Your task to perform on an android device: change the clock display to show seconds Image 0: 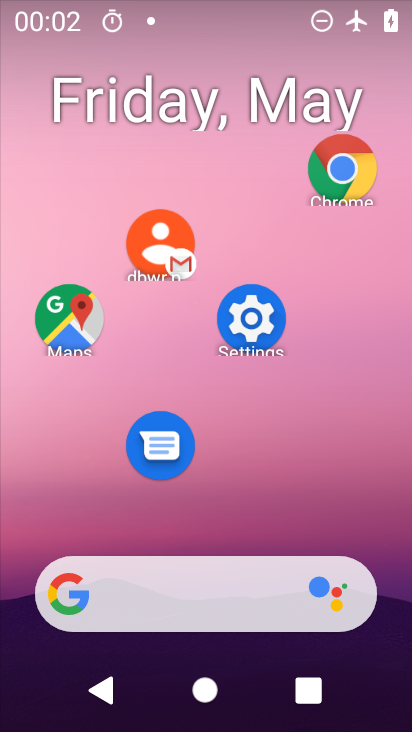
Step 0: click (323, 138)
Your task to perform on an android device: change the clock display to show seconds Image 1: 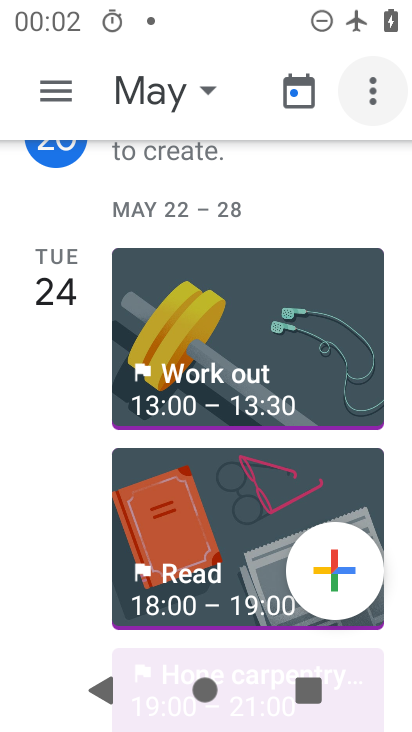
Step 1: drag from (239, 506) to (279, 251)
Your task to perform on an android device: change the clock display to show seconds Image 2: 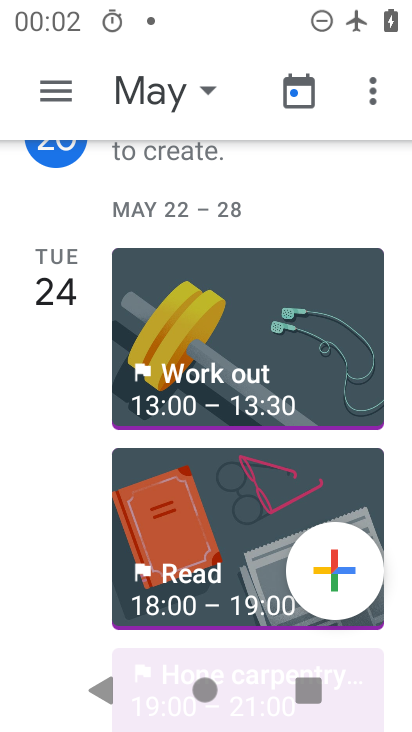
Step 2: click (179, 100)
Your task to perform on an android device: change the clock display to show seconds Image 3: 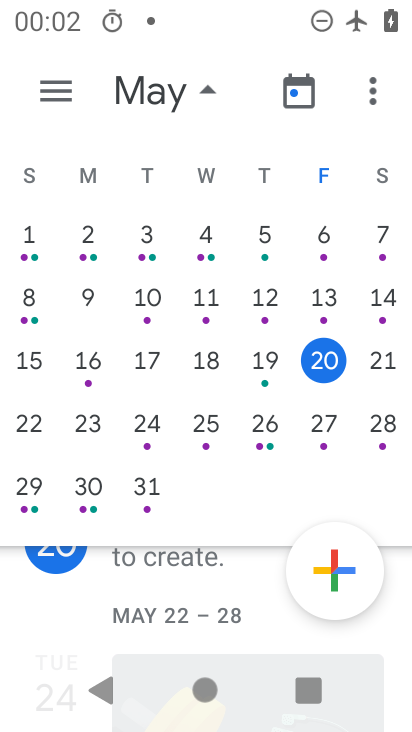
Step 3: press home button
Your task to perform on an android device: change the clock display to show seconds Image 4: 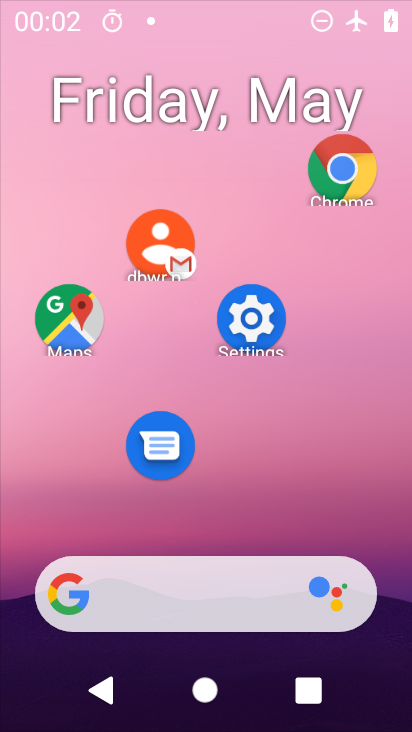
Step 4: drag from (214, 545) to (323, 202)
Your task to perform on an android device: change the clock display to show seconds Image 5: 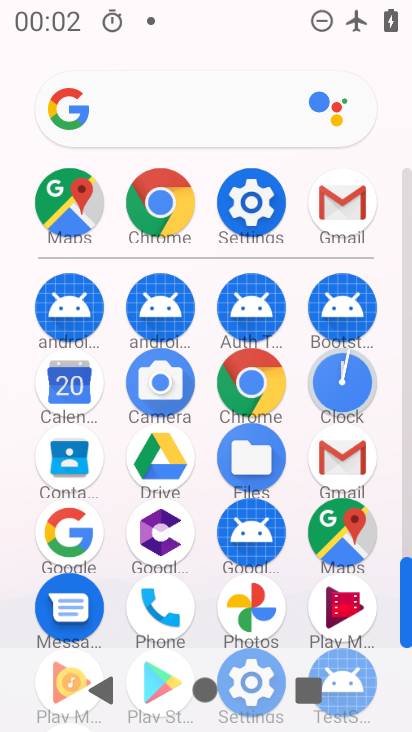
Step 5: click (339, 397)
Your task to perform on an android device: change the clock display to show seconds Image 6: 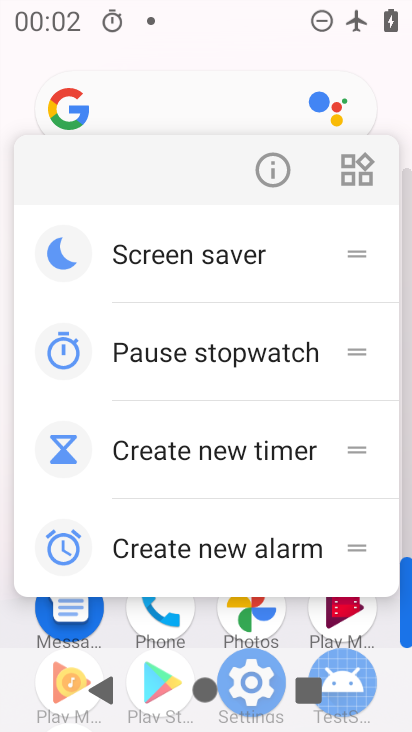
Step 6: click (278, 192)
Your task to perform on an android device: change the clock display to show seconds Image 7: 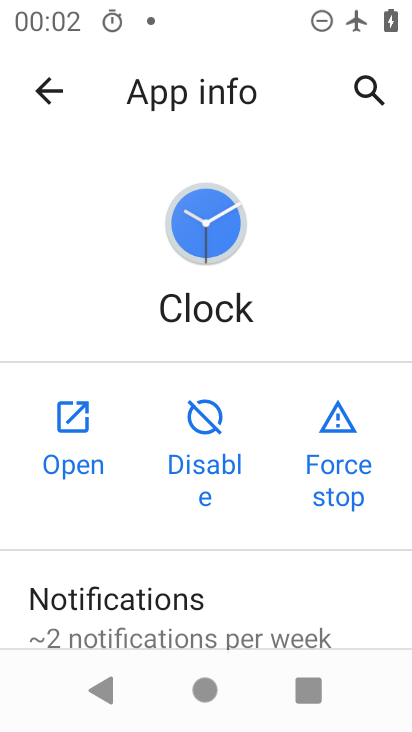
Step 7: click (62, 435)
Your task to perform on an android device: change the clock display to show seconds Image 8: 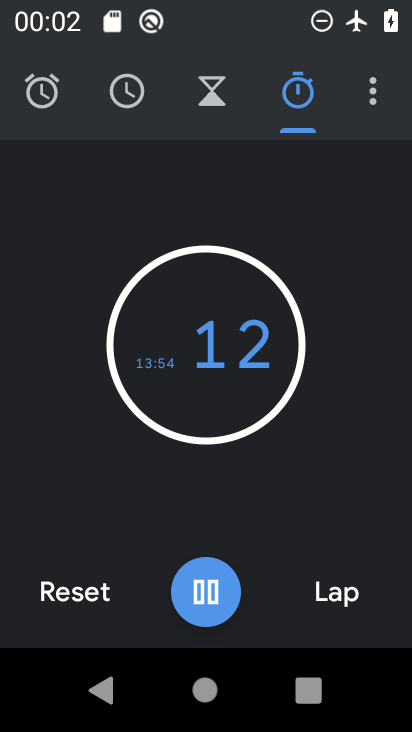
Step 8: click (357, 103)
Your task to perform on an android device: change the clock display to show seconds Image 9: 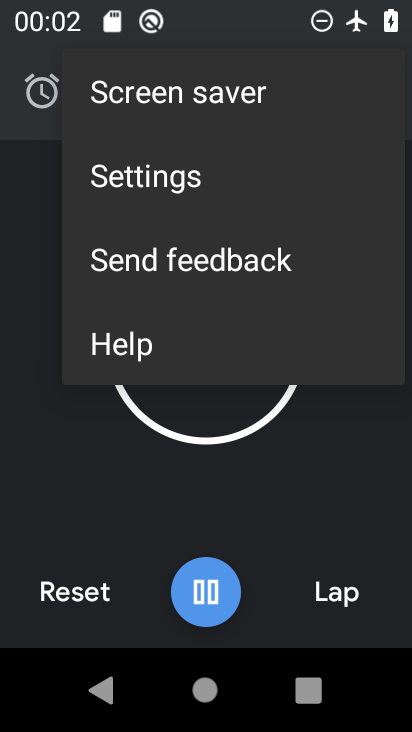
Step 9: click (183, 169)
Your task to perform on an android device: change the clock display to show seconds Image 10: 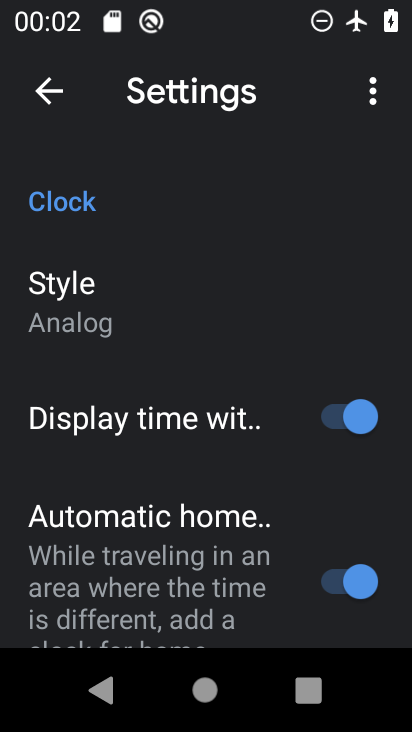
Step 10: click (333, 417)
Your task to perform on an android device: change the clock display to show seconds Image 11: 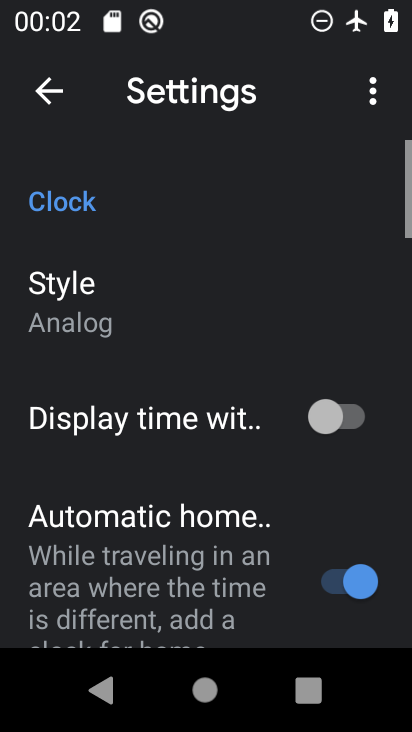
Step 11: task complete